Your task to perform on an android device: make emails show in primary in the gmail app Image 0: 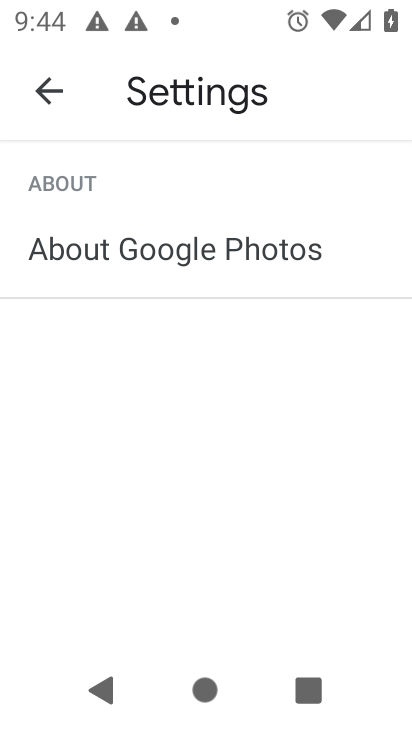
Step 0: press home button
Your task to perform on an android device: make emails show in primary in the gmail app Image 1: 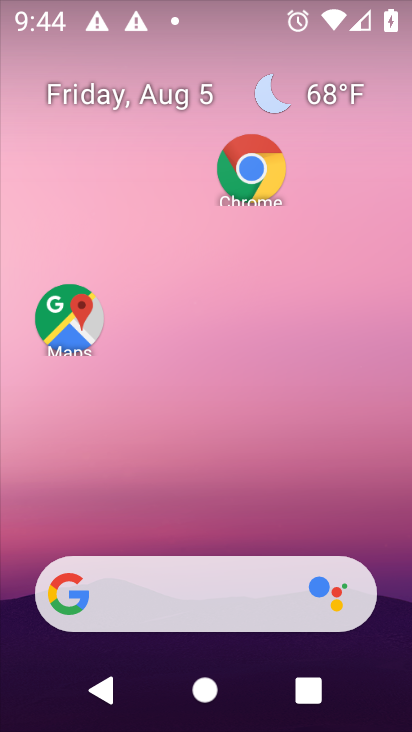
Step 1: drag from (211, 533) to (192, 199)
Your task to perform on an android device: make emails show in primary in the gmail app Image 2: 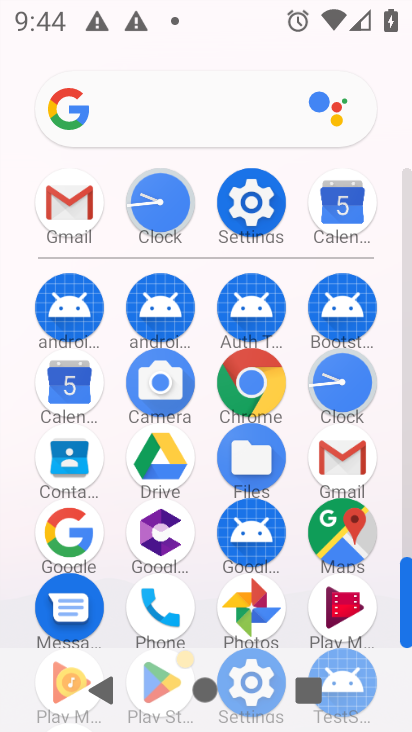
Step 2: click (69, 200)
Your task to perform on an android device: make emails show in primary in the gmail app Image 3: 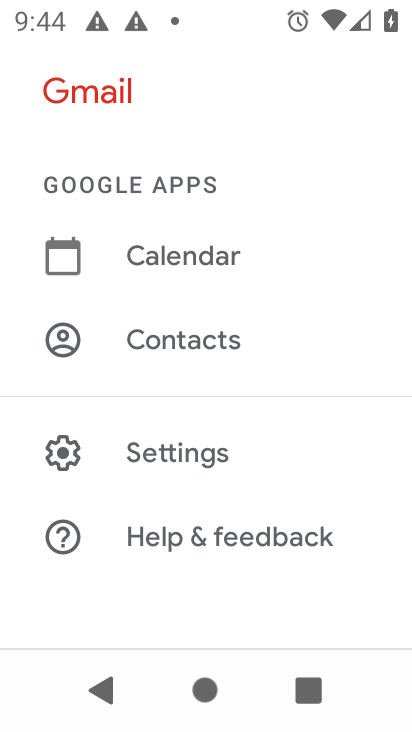
Step 3: task complete